Your task to perform on an android device: Open calendar and show me the second week of next month Image 0: 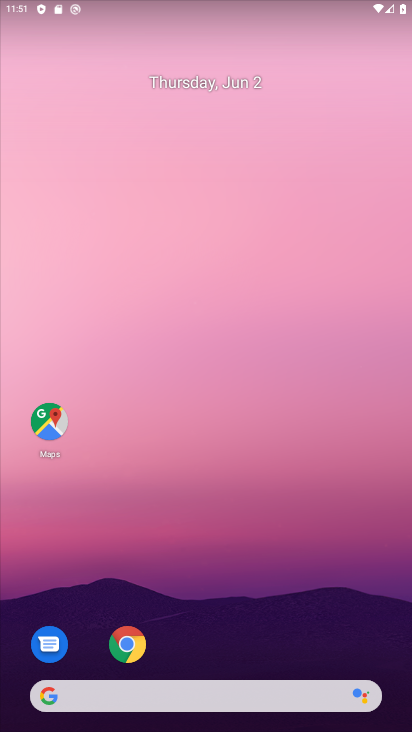
Step 0: drag from (206, 731) to (213, 12)
Your task to perform on an android device: Open calendar and show me the second week of next month Image 1: 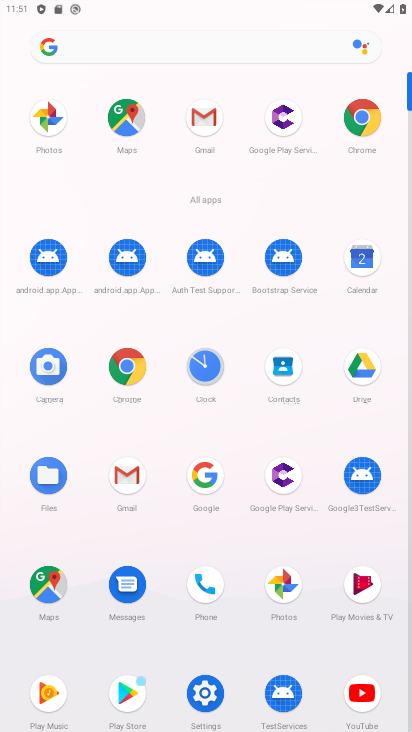
Step 1: click (362, 260)
Your task to perform on an android device: Open calendar and show me the second week of next month Image 2: 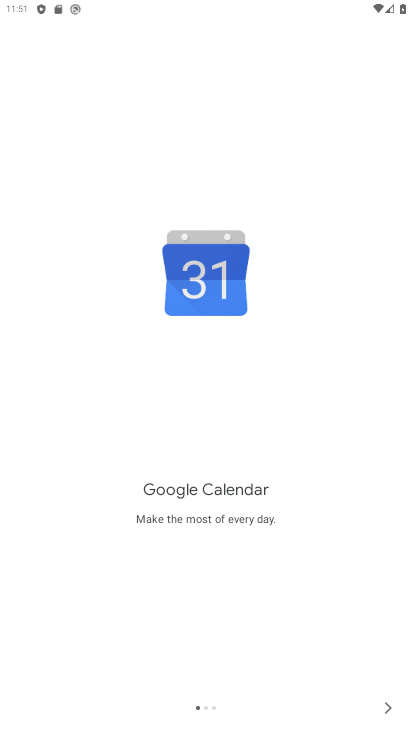
Step 2: click (385, 708)
Your task to perform on an android device: Open calendar and show me the second week of next month Image 3: 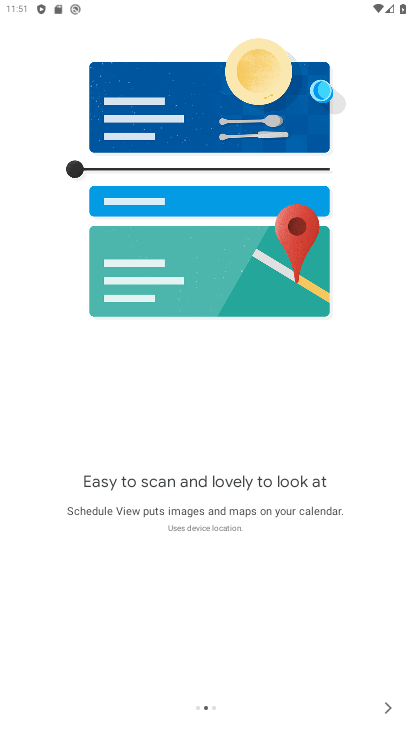
Step 3: click (390, 704)
Your task to perform on an android device: Open calendar and show me the second week of next month Image 4: 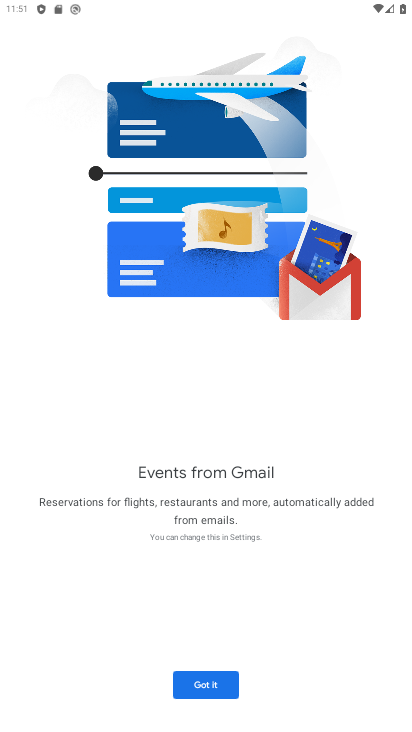
Step 4: click (207, 684)
Your task to perform on an android device: Open calendar and show me the second week of next month Image 5: 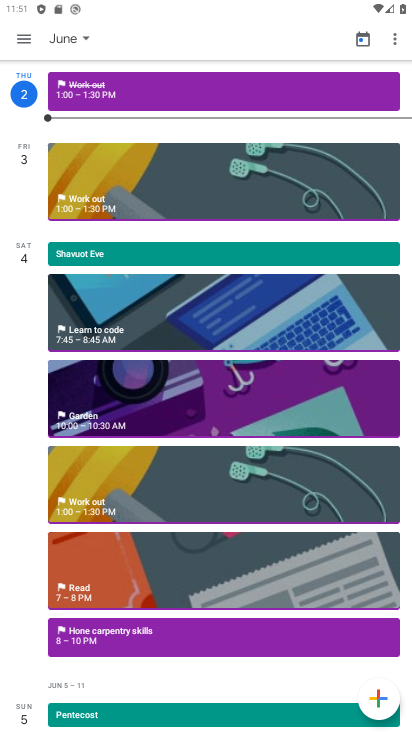
Step 5: click (86, 38)
Your task to perform on an android device: Open calendar and show me the second week of next month Image 6: 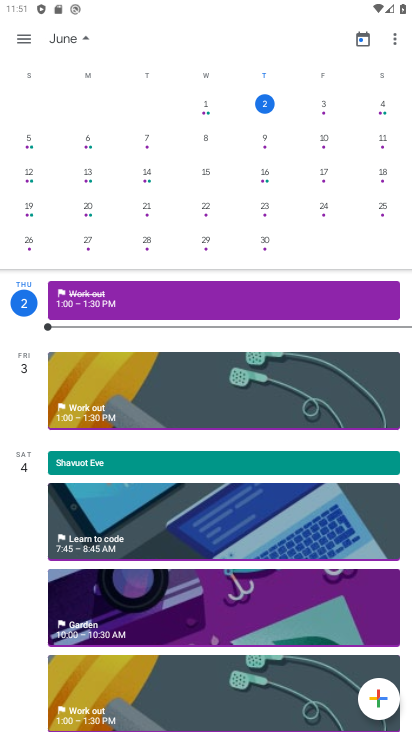
Step 6: drag from (352, 158) to (47, 171)
Your task to perform on an android device: Open calendar and show me the second week of next month Image 7: 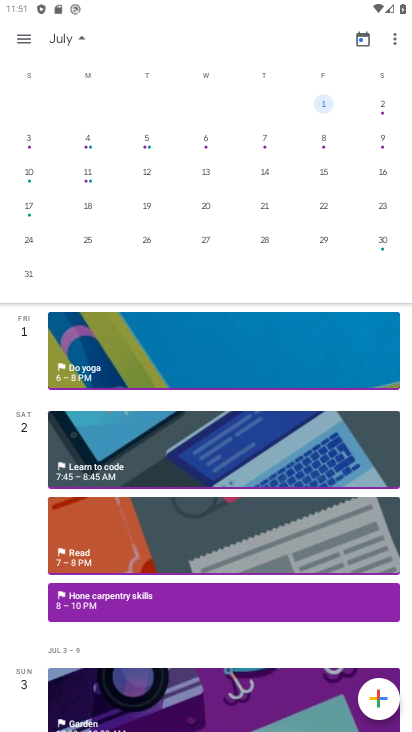
Step 7: click (88, 175)
Your task to perform on an android device: Open calendar and show me the second week of next month Image 8: 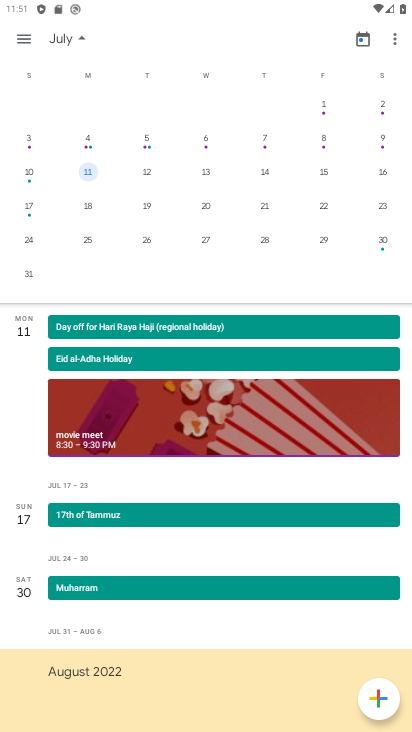
Step 8: click (25, 38)
Your task to perform on an android device: Open calendar and show me the second week of next month Image 9: 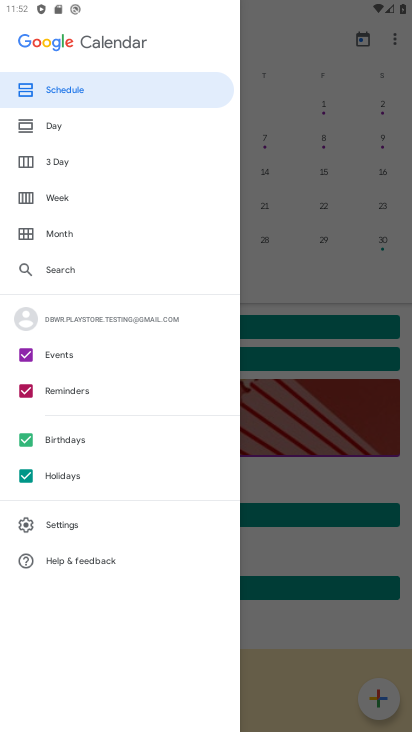
Step 9: click (68, 201)
Your task to perform on an android device: Open calendar and show me the second week of next month Image 10: 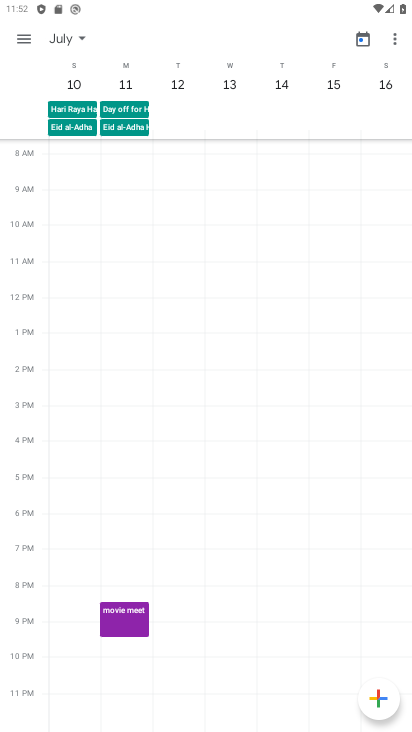
Step 10: task complete